Your task to perform on an android device: Do I have any events today? Image 0: 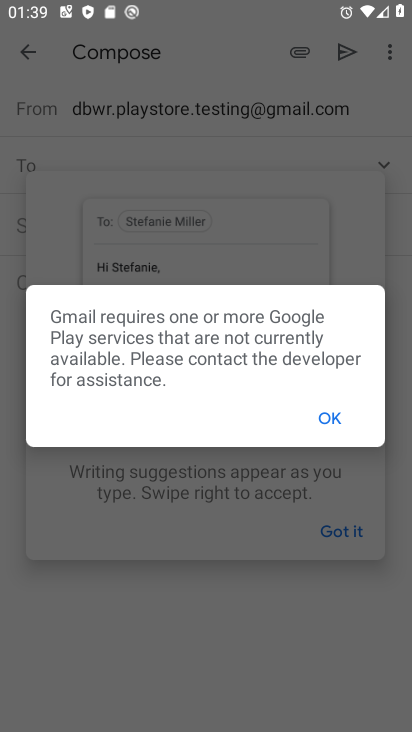
Step 0: press back button
Your task to perform on an android device: Do I have any events today? Image 1: 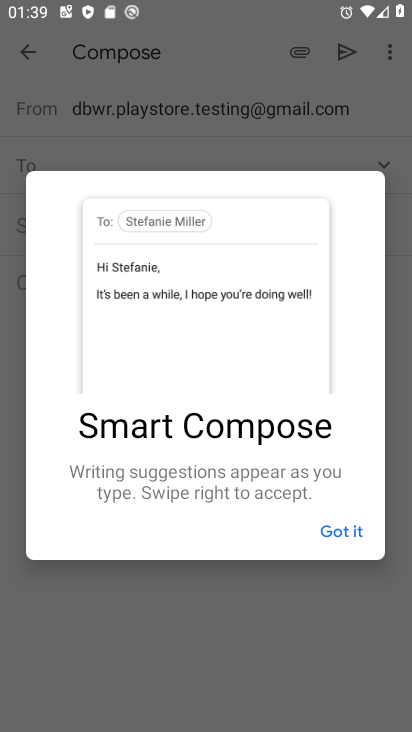
Step 1: press back button
Your task to perform on an android device: Do I have any events today? Image 2: 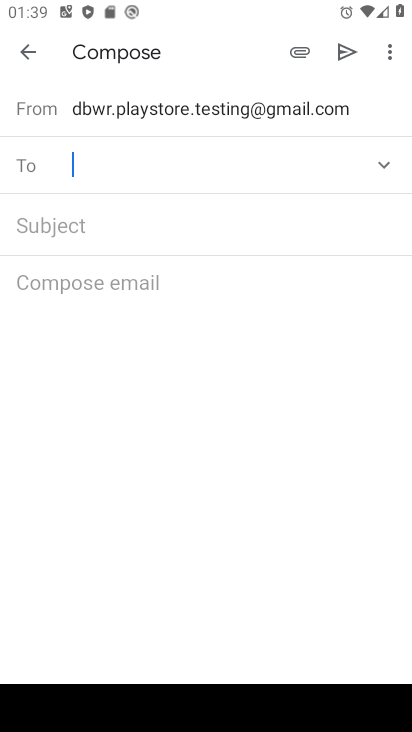
Step 2: press home button
Your task to perform on an android device: Do I have any events today? Image 3: 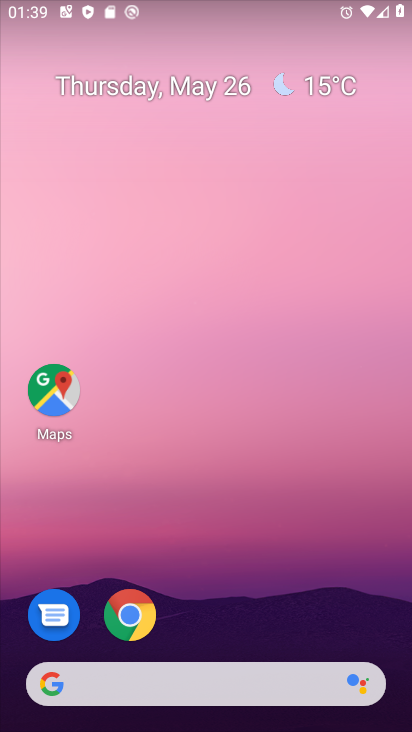
Step 3: drag from (242, 610) to (207, 703)
Your task to perform on an android device: Do I have any events today? Image 4: 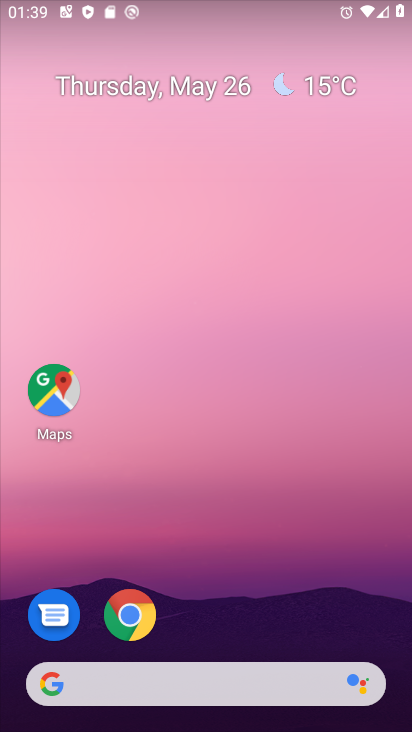
Step 4: drag from (176, 630) to (294, 55)
Your task to perform on an android device: Do I have any events today? Image 5: 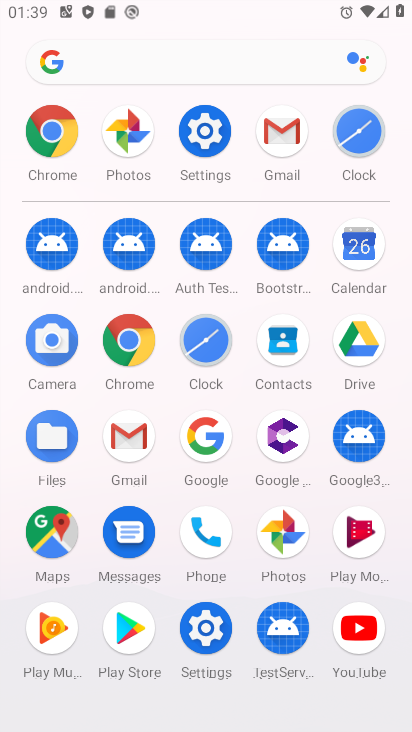
Step 5: click (357, 250)
Your task to perform on an android device: Do I have any events today? Image 6: 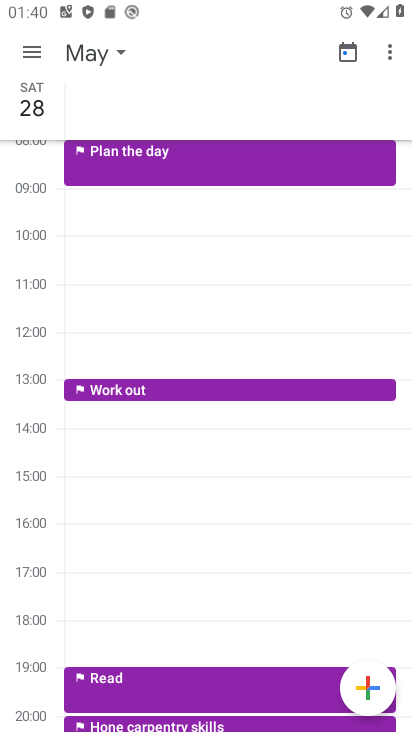
Step 6: click (102, 55)
Your task to perform on an android device: Do I have any events today? Image 7: 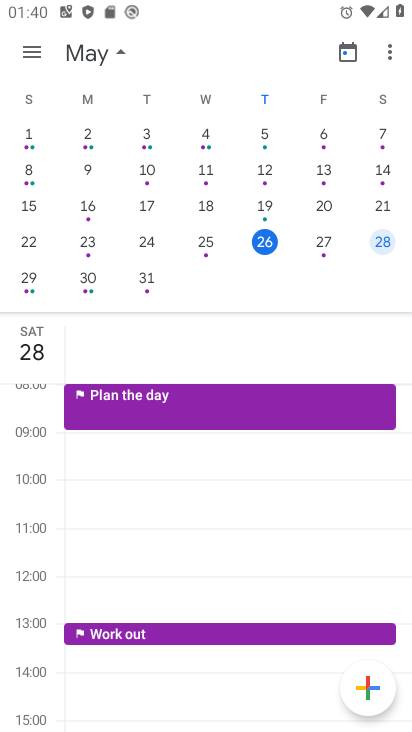
Step 7: click (266, 244)
Your task to perform on an android device: Do I have any events today? Image 8: 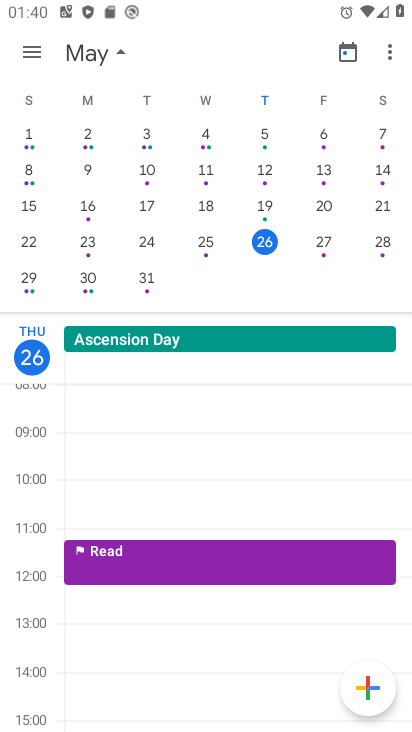
Step 8: click (26, 56)
Your task to perform on an android device: Do I have any events today? Image 9: 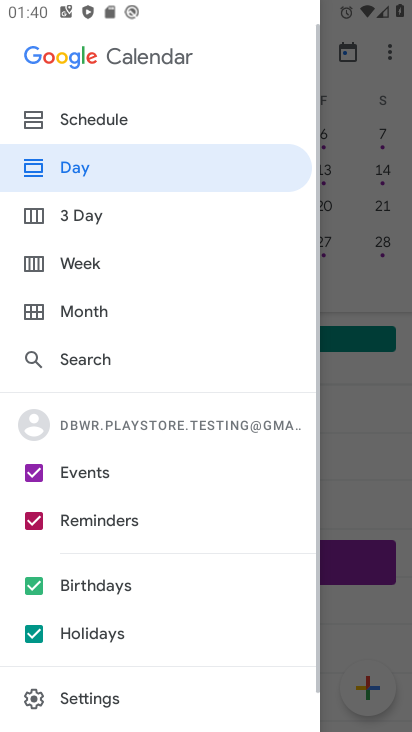
Step 9: click (71, 117)
Your task to perform on an android device: Do I have any events today? Image 10: 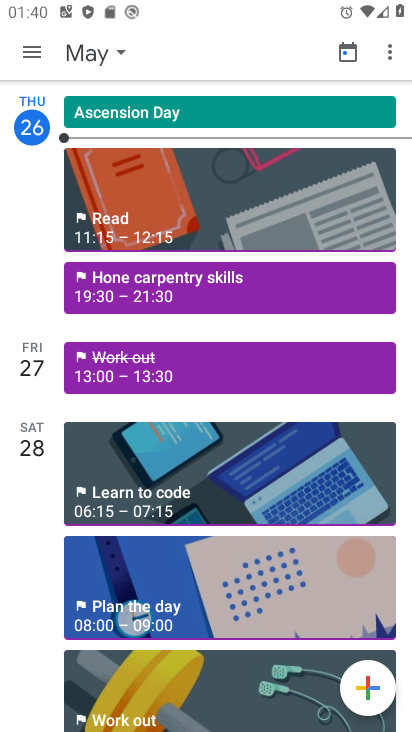
Step 10: task complete